Your task to perform on an android device: turn on notifications settings in the gmail app Image 0: 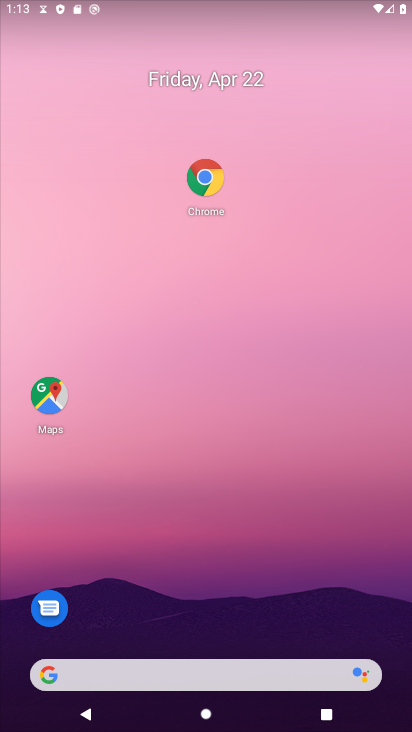
Step 0: drag from (131, 672) to (224, 241)
Your task to perform on an android device: turn on notifications settings in the gmail app Image 1: 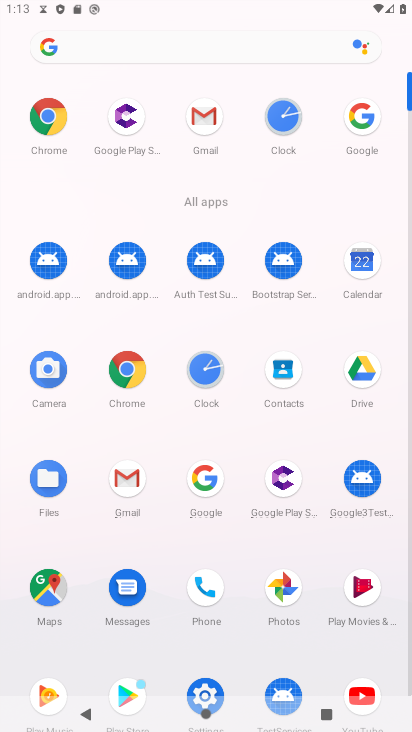
Step 1: click (208, 124)
Your task to perform on an android device: turn on notifications settings in the gmail app Image 2: 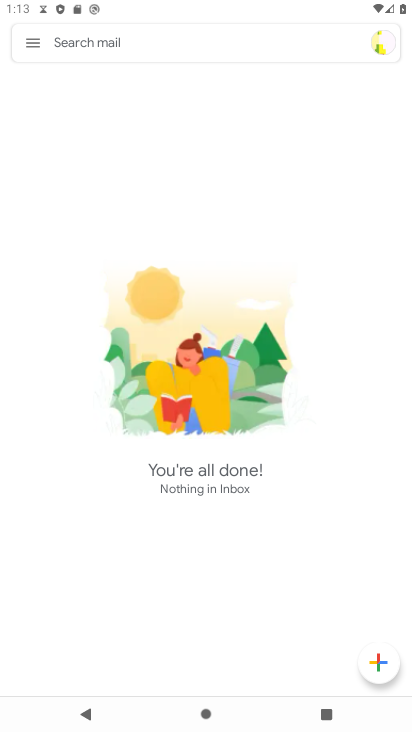
Step 2: click (34, 44)
Your task to perform on an android device: turn on notifications settings in the gmail app Image 3: 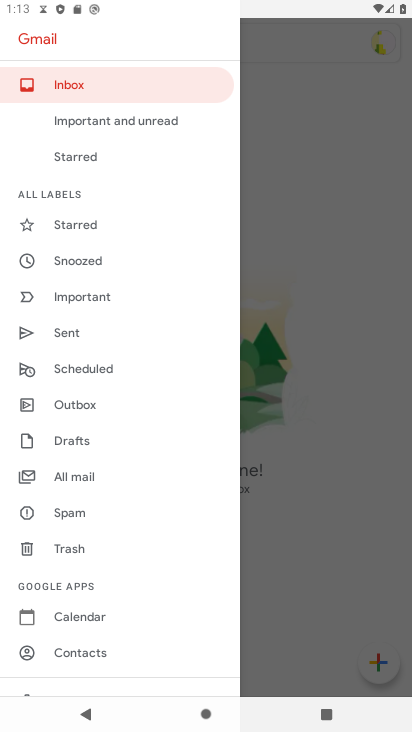
Step 3: drag from (132, 621) to (183, 240)
Your task to perform on an android device: turn on notifications settings in the gmail app Image 4: 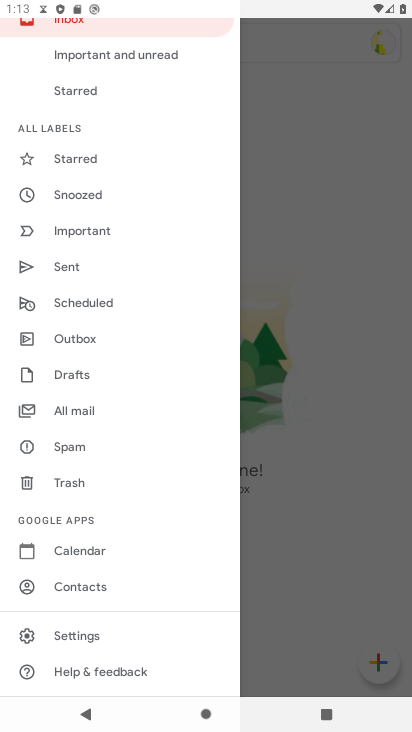
Step 4: click (81, 635)
Your task to perform on an android device: turn on notifications settings in the gmail app Image 5: 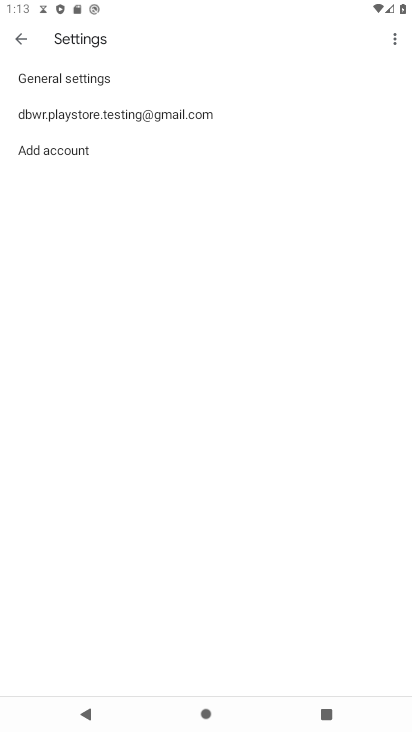
Step 5: click (151, 110)
Your task to perform on an android device: turn on notifications settings in the gmail app Image 6: 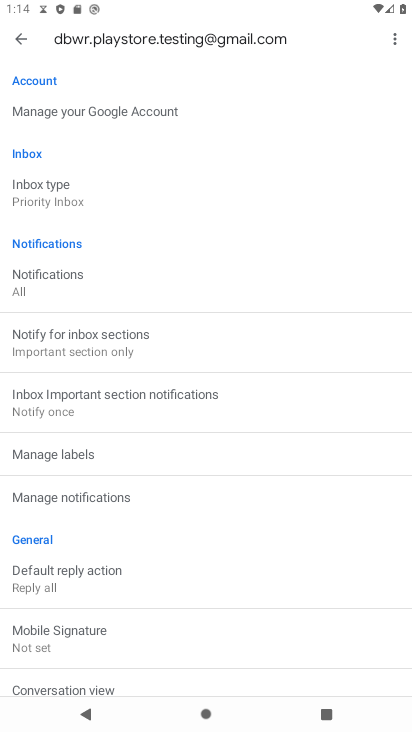
Step 6: click (61, 279)
Your task to perform on an android device: turn on notifications settings in the gmail app Image 7: 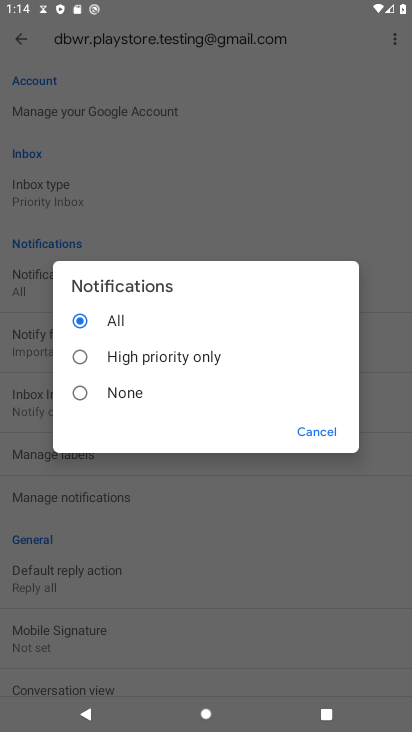
Step 7: task complete